Your task to perform on an android device: open chrome and create a bookmark for the current page Image 0: 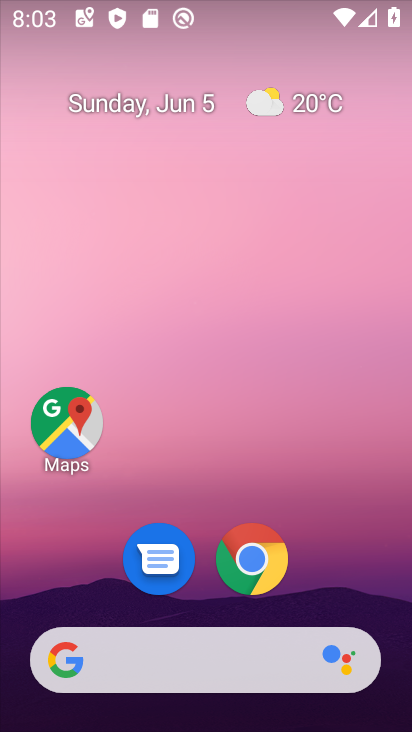
Step 0: click (258, 553)
Your task to perform on an android device: open chrome and create a bookmark for the current page Image 1: 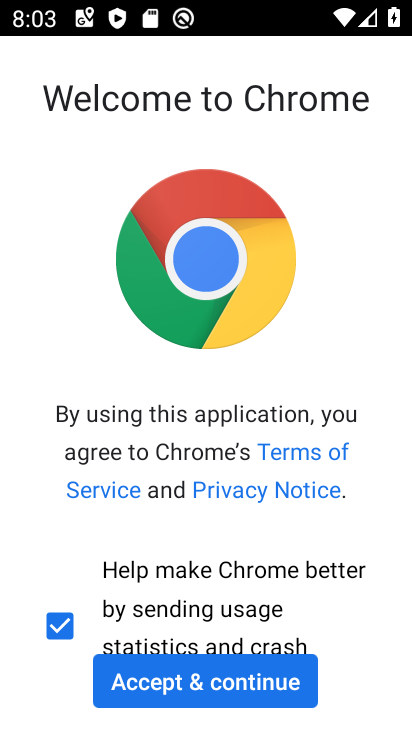
Step 1: click (169, 681)
Your task to perform on an android device: open chrome and create a bookmark for the current page Image 2: 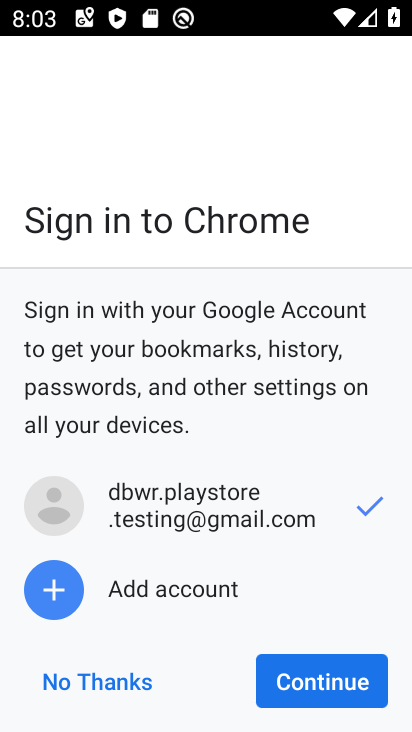
Step 2: click (301, 680)
Your task to perform on an android device: open chrome and create a bookmark for the current page Image 3: 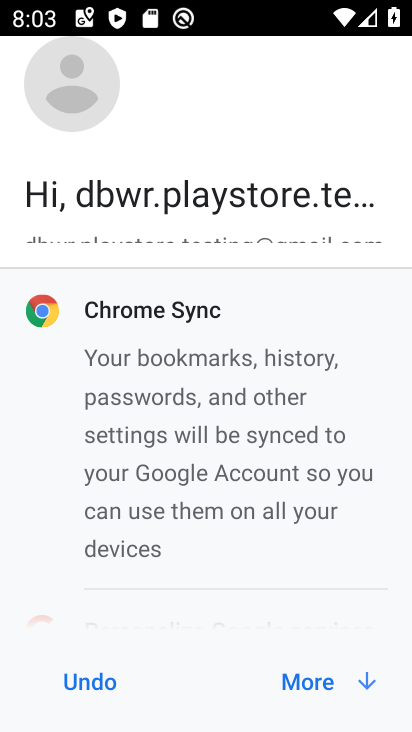
Step 3: click (319, 680)
Your task to perform on an android device: open chrome and create a bookmark for the current page Image 4: 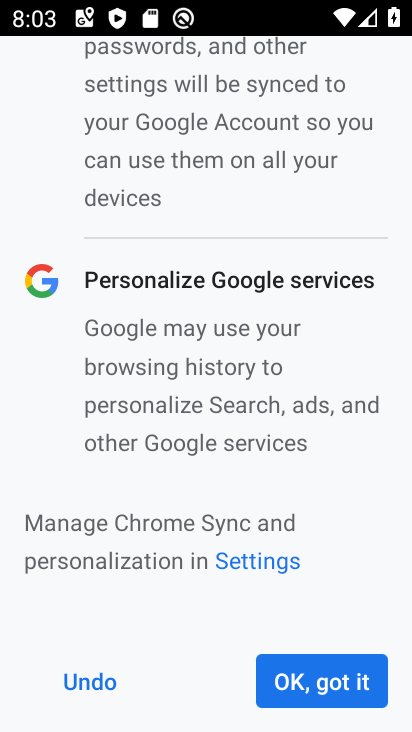
Step 4: click (315, 680)
Your task to perform on an android device: open chrome and create a bookmark for the current page Image 5: 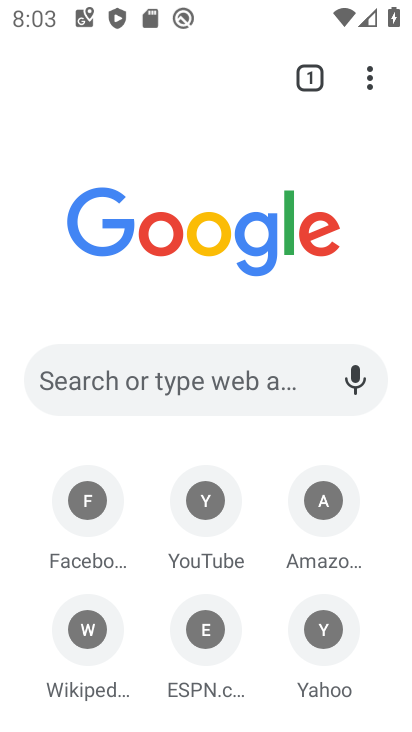
Step 5: click (366, 74)
Your task to perform on an android device: open chrome and create a bookmark for the current page Image 6: 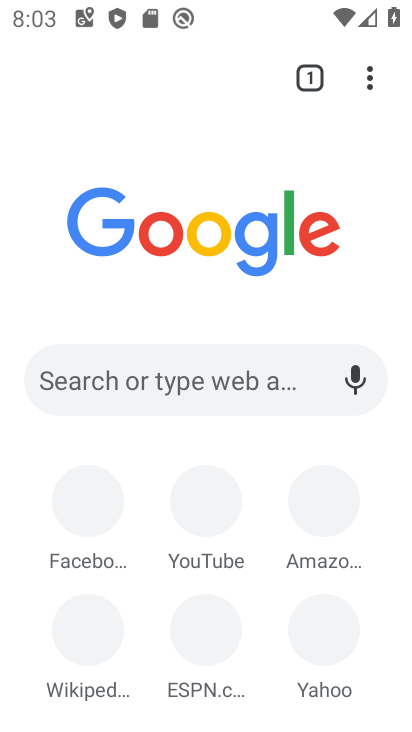
Step 6: click (367, 78)
Your task to perform on an android device: open chrome and create a bookmark for the current page Image 7: 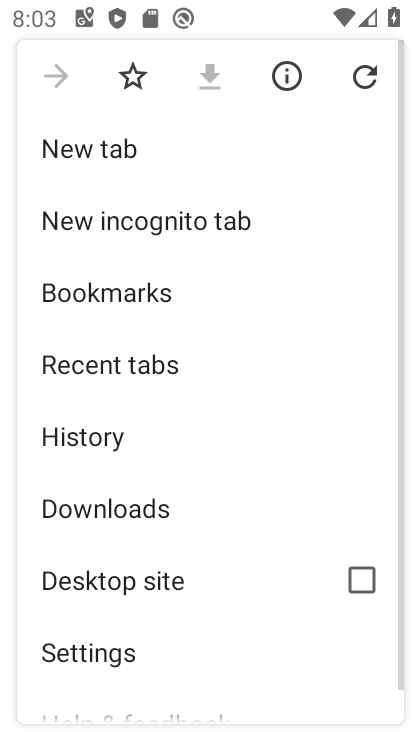
Step 7: click (130, 72)
Your task to perform on an android device: open chrome and create a bookmark for the current page Image 8: 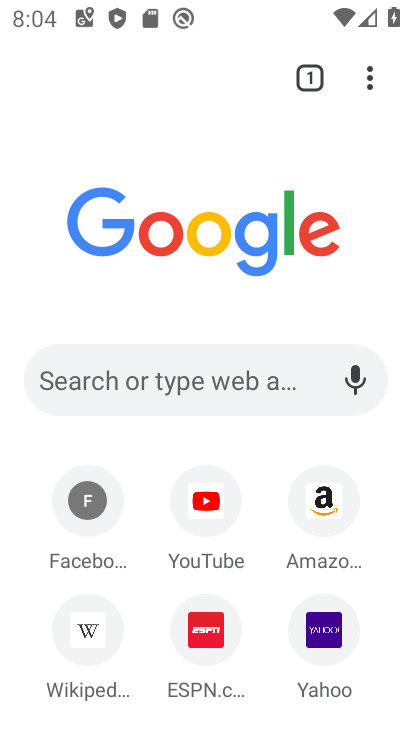
Step 8: task complete